Your task to perform on an android device: Toggle the flashlight Image 0: 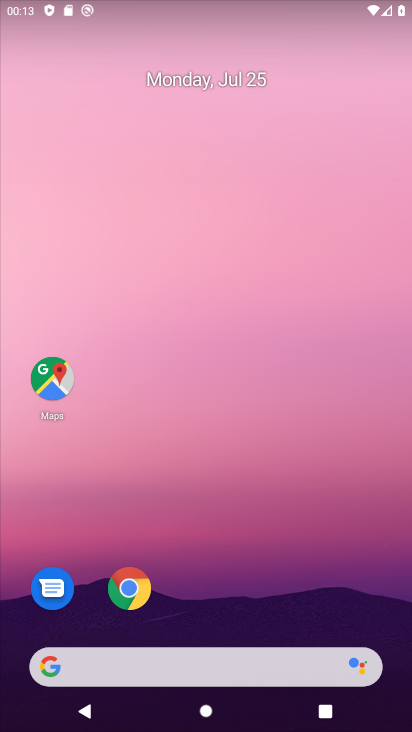
Step 0: drag from (205, 621) to (339, 7)
Your task to perform on an android device: Toggle the flashlight Image 1: 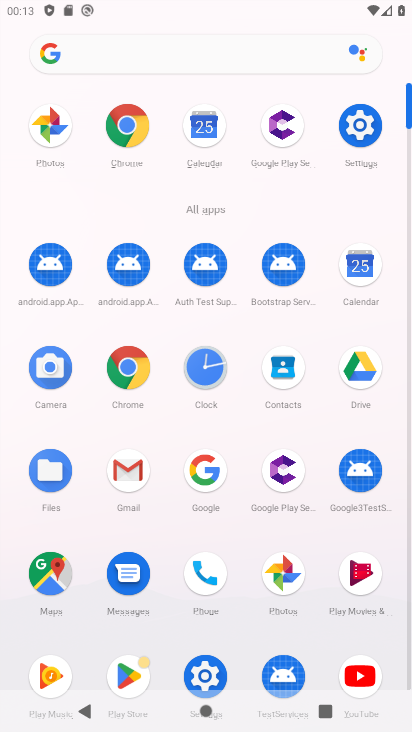
Step 1: click (368, 140)
Your task to perform on an android device: Toggle the flashlight Image 2: 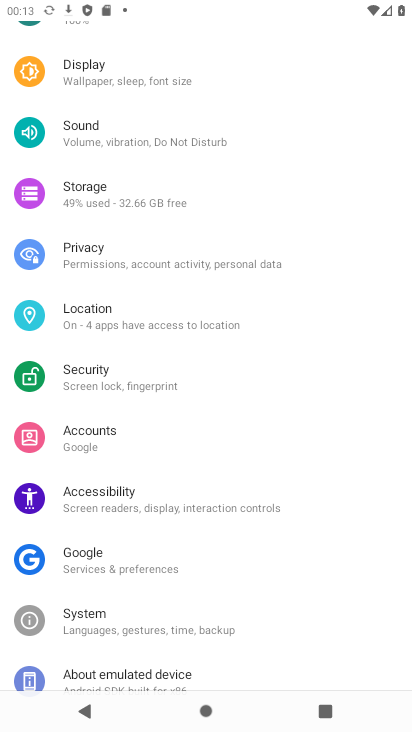
Step 2: drag from (219, 99) to (208, 603)
Your task to perform on an android device: Toggle the flashlight Image 3: 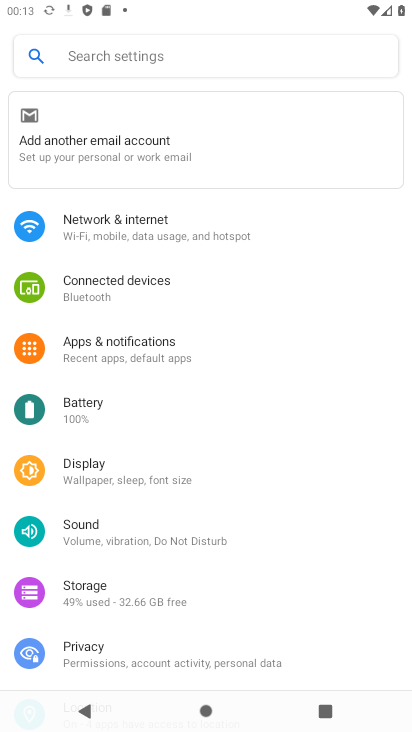
Step 3: click (201, 52)
Your task to perform on an android device: Toggle the flashlight Image 4: 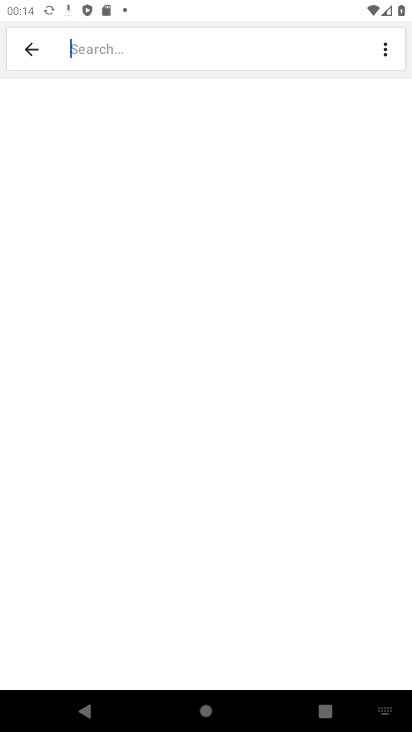
Step 4: type "flashlight"
Your task to perform on an android device: Toggle the flashlight Image 5: 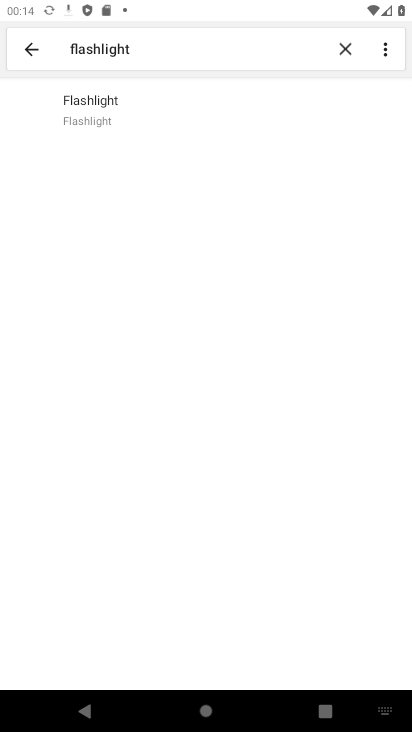
Step 5: click (116, 97)
Your task to perform on an android device: Toggle the flashlight Image 6: 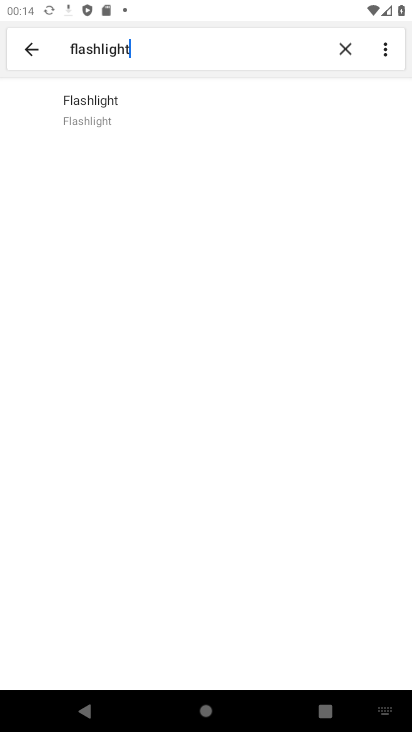
Step 6: click (112, 105)
Your task to perform on an android device: Toggle the flashlight Image 7: 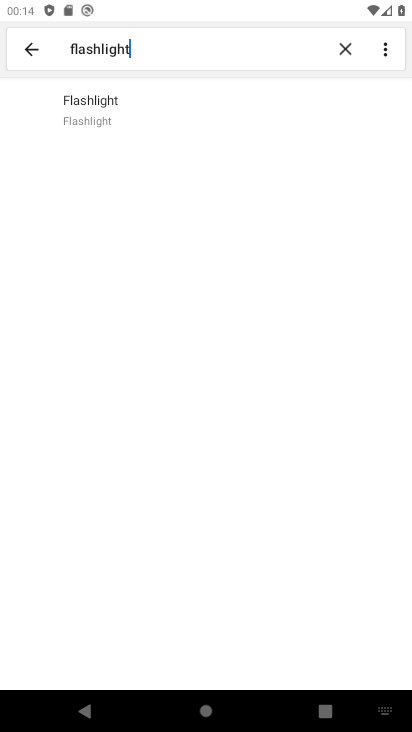
Step 7: click (124, 114)
Your task to perform on an android device: Toggle the flashlight Image 8: 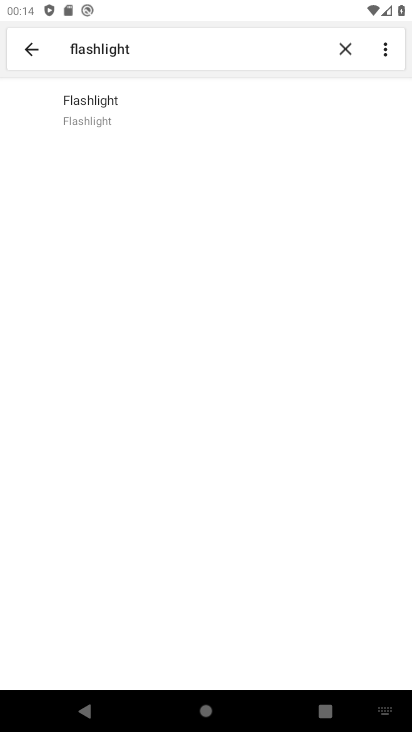
Step 8: click (105, 118)
Your task to perform on an android device: Toggle the flashlight Image 9: 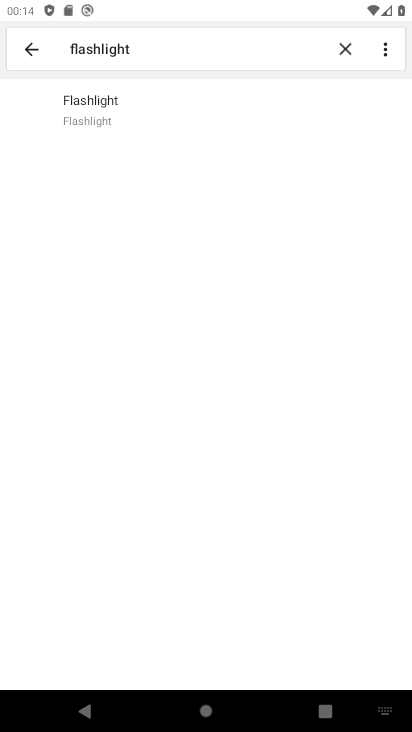
Step 9: task complete